Your task to perform on an android device: Open settings on Google Maps Image 0: 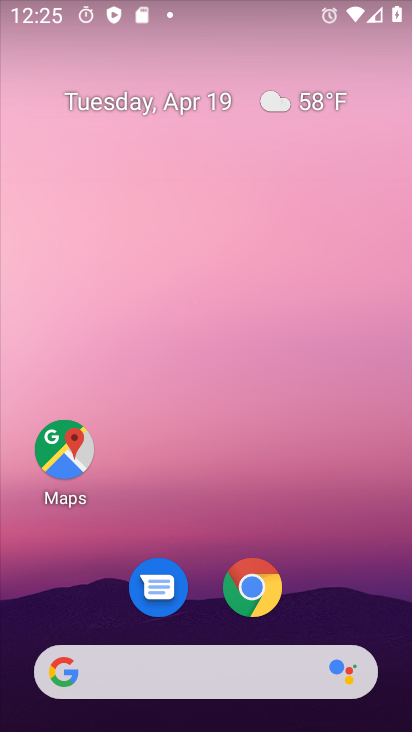
Step 0: drag from (356, 520) to (386, 191)
Your task to perform on an android device: Open settings on Google Maps Image 1: 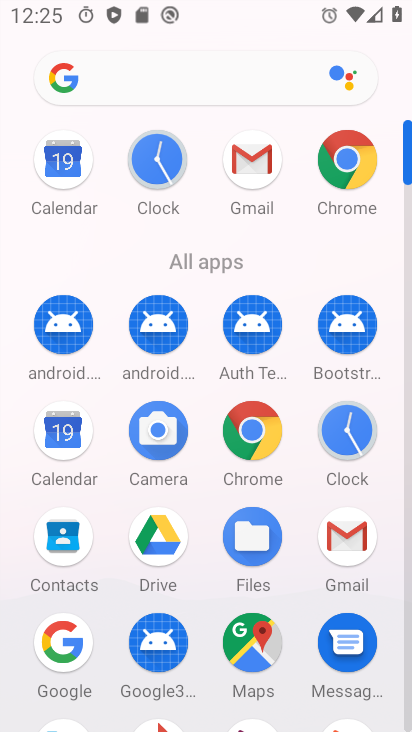
Step 1: drag from (389, 407) to (392, 246)
Your task to perform on an android device: Open settings on Google Maps Image 2: 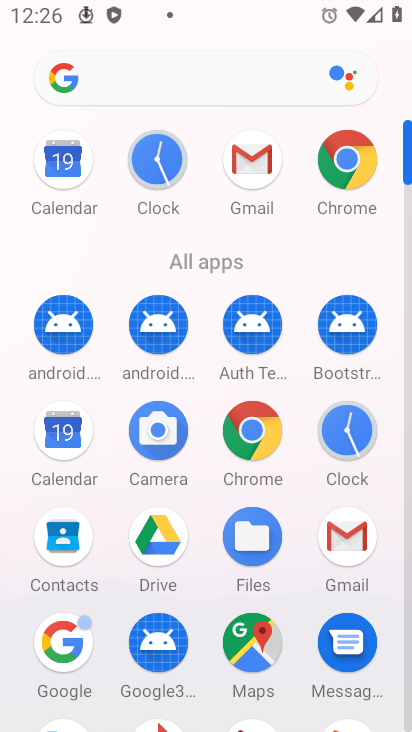
Step 2: drag from (296, 598) to (302, 264)
Your task to perform on an android device: Open settings on Google Maps Image 3: 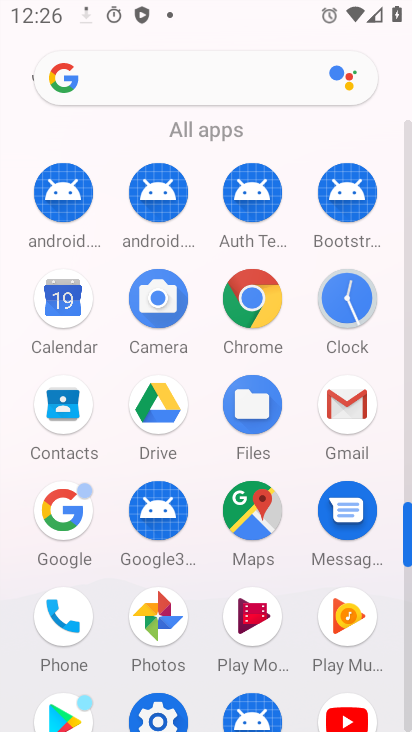
Step 3: click (250, 510)
Your task to perform on an android device: Open settings on Google Maps Image 4: 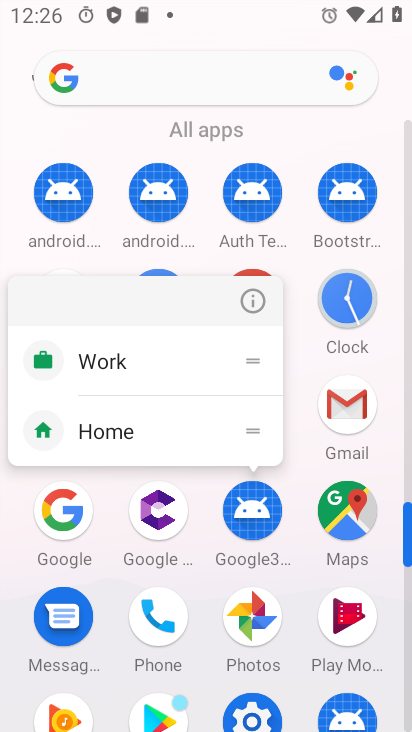
Step 4: click (362, 527)
Your task to perform on an android device: Open settings on Google Maps Image 5: 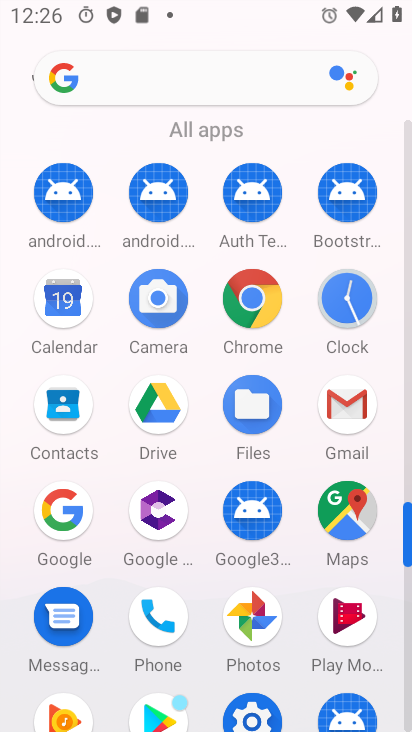
Step 5: click (363, 526)
Your task to perform on an android device: Open settings on Google Maps Image 6: 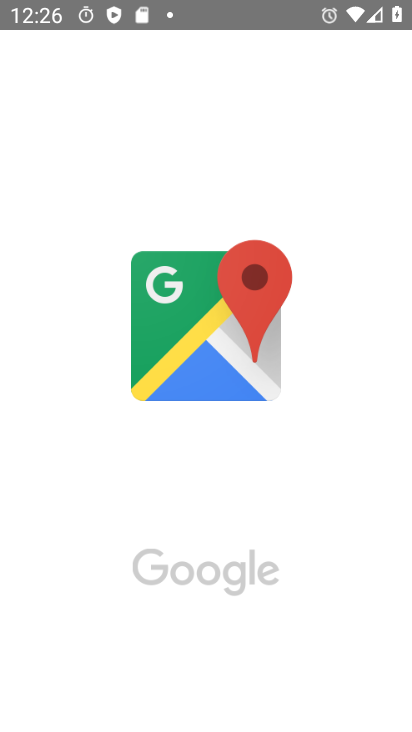
Step 6: task complete